Your task to perform on an android device: check data usage Image 0: 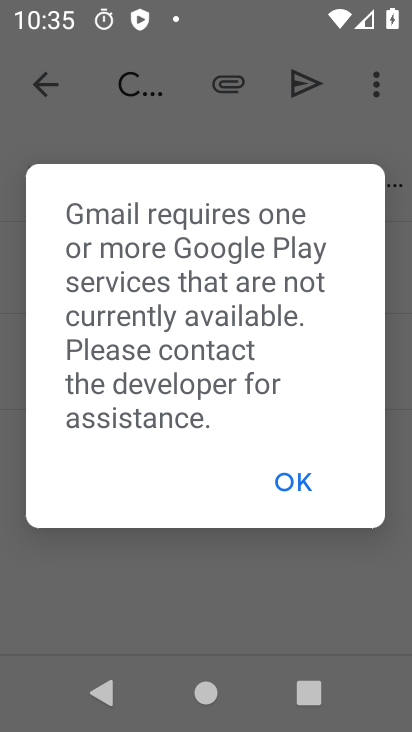
Step 0: click (274, 491)
Your task to perform on an android device: check data usage Image 1: 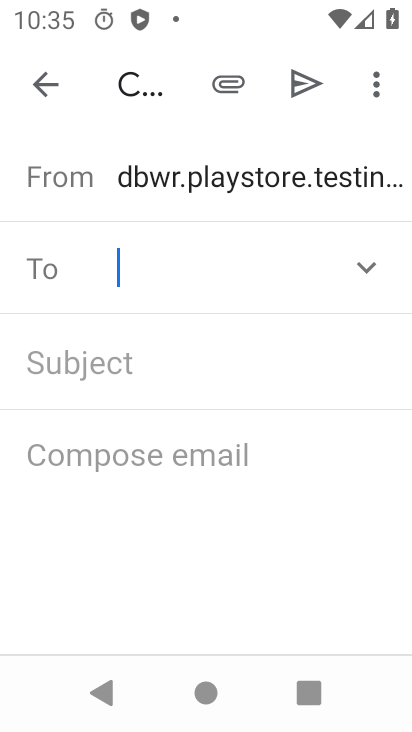
Step 1: press home button
Your task to perform on an android device: check data usage Image 2: 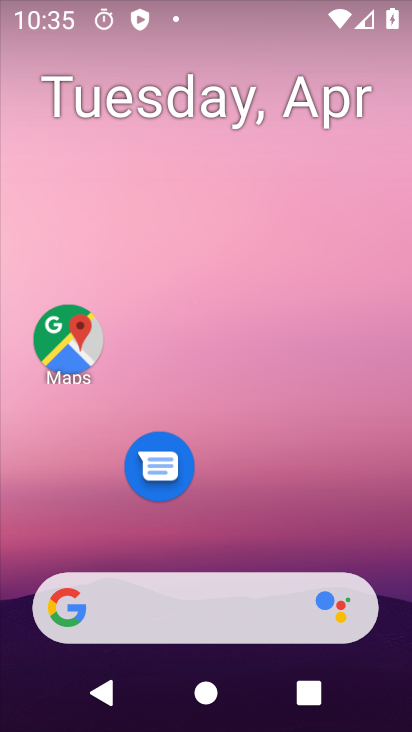
Step 2: drag from (283, 521) to (257, 126)
Your task to perform on an android device: check data usage Image 3: 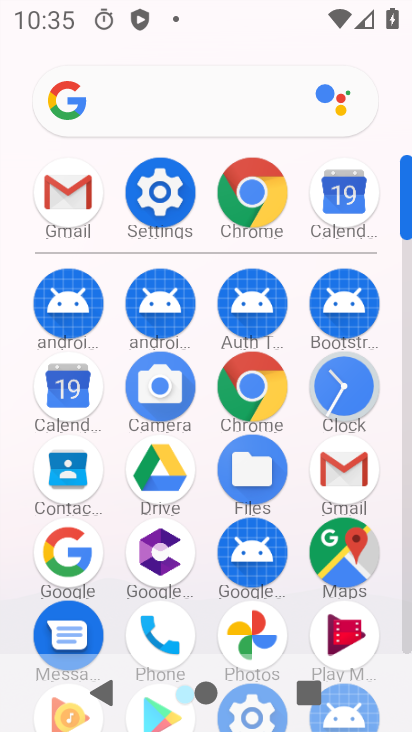
Step 3: click (145, 209)
Your task to perform on an android device: check data usage Image 4: 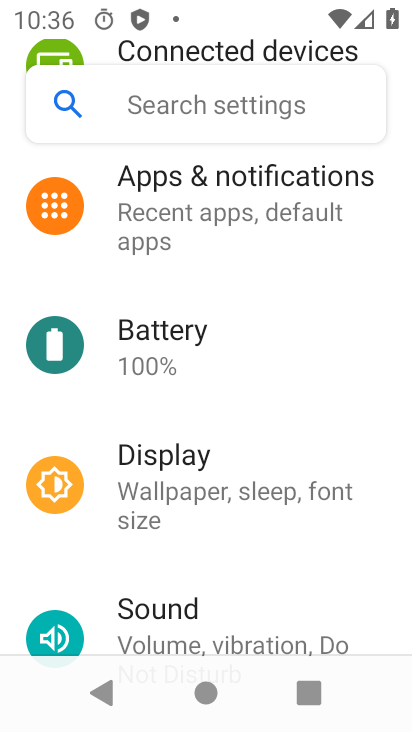
Step 4: drag from (264, 266) to (252, 583)
Your task to perform on an android device: check data usage Image 5: 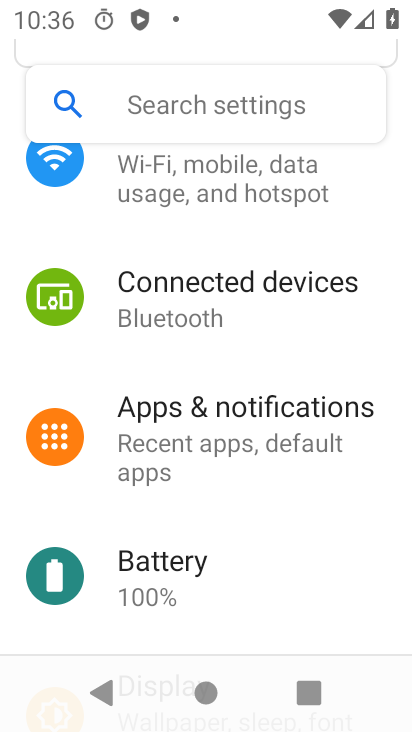
Step 5: click (252, 179)
Your task to perform on an android device: check data usage Image 6: 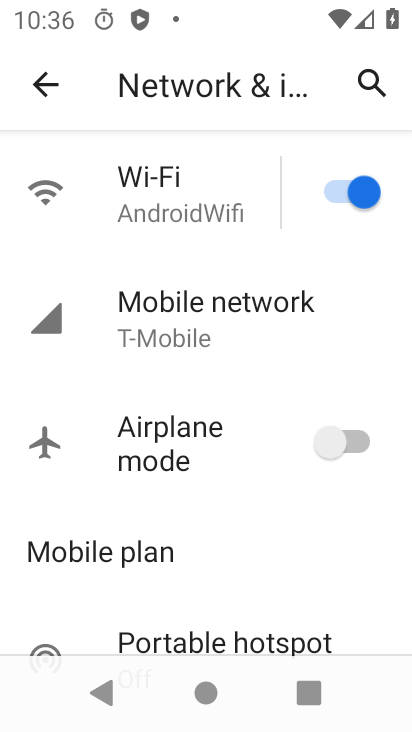
Step 6: click (207, 301)
Your task to perform on an android device: check data usage Image 7: 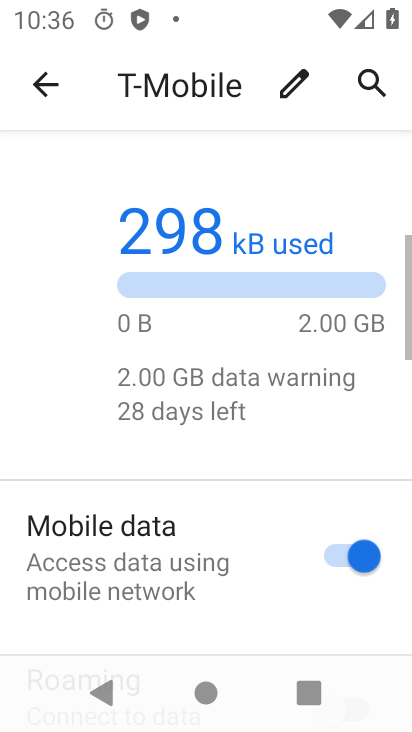
Step 7: task complete